Your task to perform on an android device: Go to CNN.com Image 0: 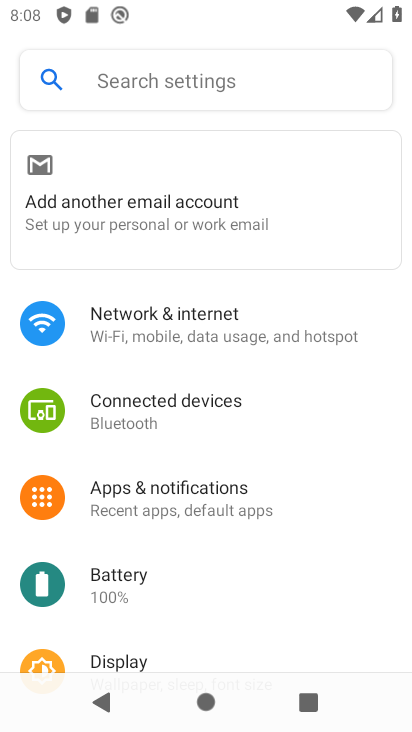
Step 0: press home button
Your task to perform on an android device: Go to CNN.com Image 1: 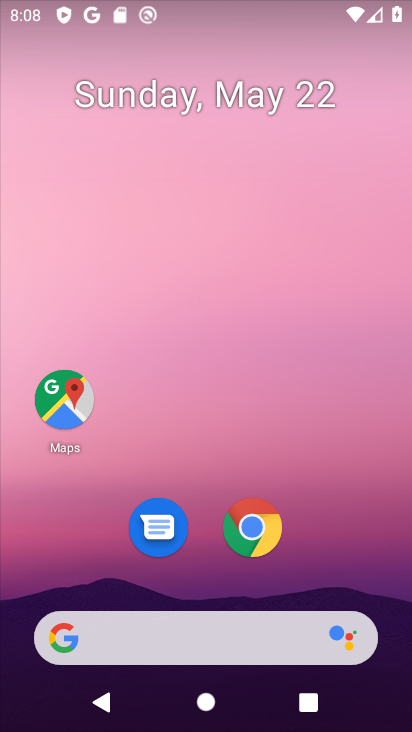
Step 1: click (247, 536)
Your task to perform on an android device: Go to CNN.com Image 2: 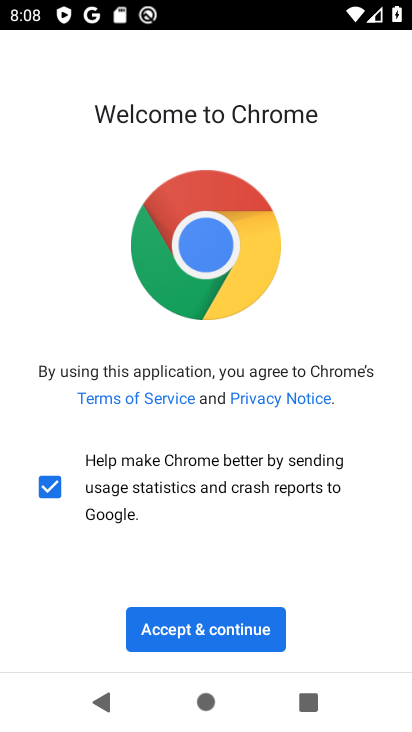
Step 2: click (199, 622)
Your task to perform on an android device: Go to CNN.com Image 3: 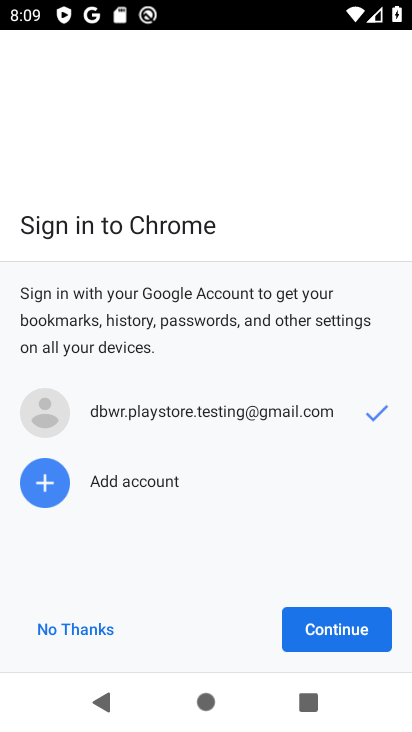
Step 3: click (369, 625)
Your task to perform on an android device: Go to CNN.com Image 4: 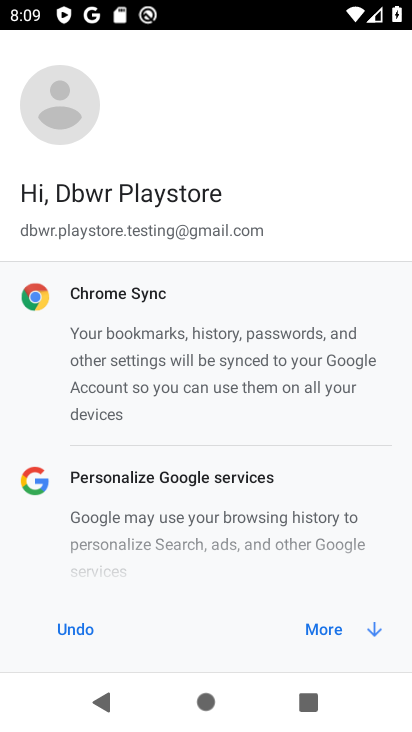
Step 4: click (344, 627)
Your task to perform on an android device: Go to CNN.com Image 5: 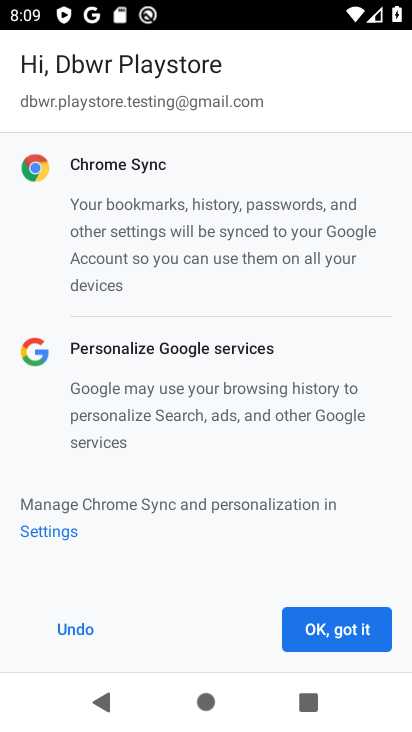
Step 5: click (344, 627)
Your task to perform on an android device: Go to CNN.com Image 6: 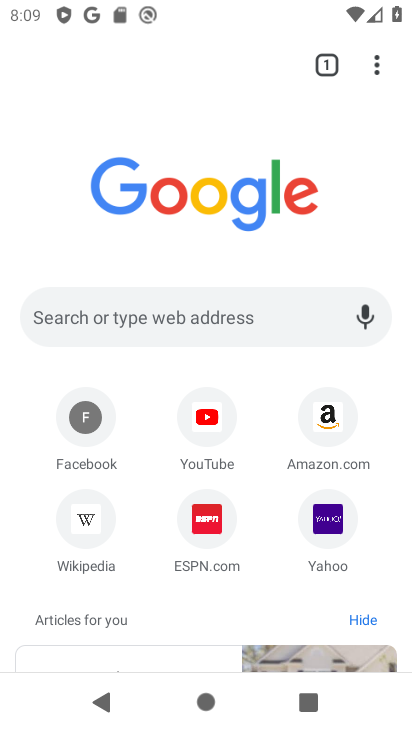
Step 6: click (108, 312)
Your task to perform on an android device: Go to CNN.com Image 7: 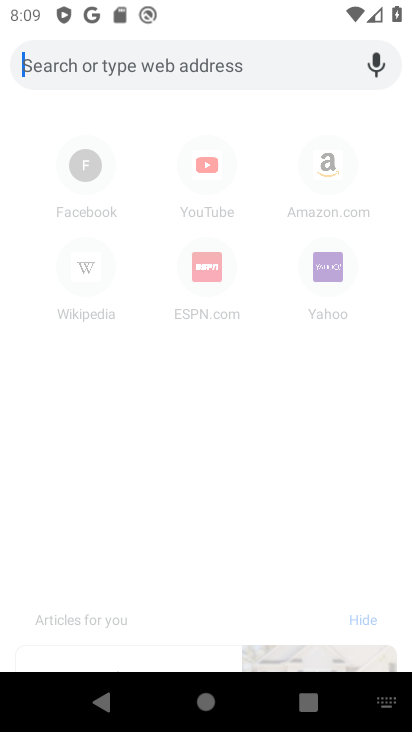
Step 7: type "cnn.com"
Your task to perform on an android device: Go to CNN.com Image 8: 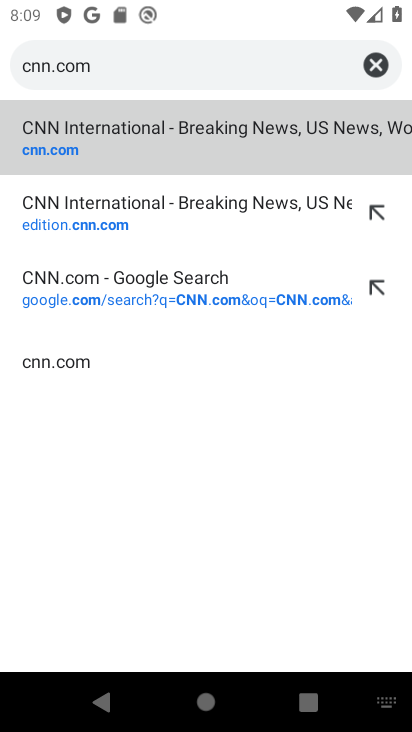
Step 8: click (95, 143)
Your task to perform on an android device: Go to CNN.com Image 9: 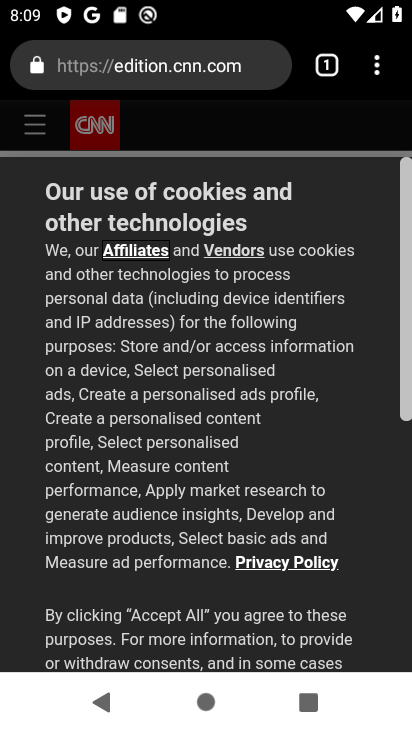
Step 9: drag from (218, 517) to (216, 176)
Your task to perform on an android device: Go to CNN.com Image 10: 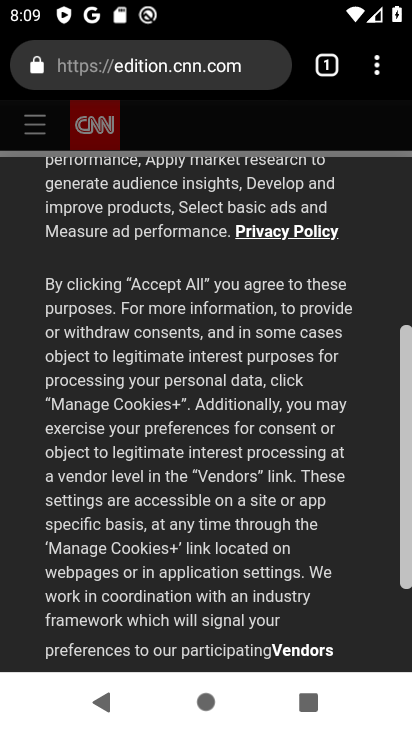
Step 10: drag from (216, 531) to (221, 241)
Your task to perform on an android device: Go to CNN.com Image 11: 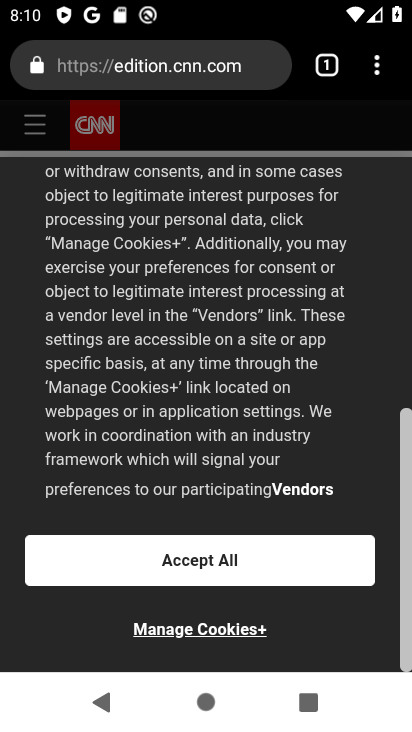
Step 11: click (203, 559)
Your task to perform on an android device: Go to CNN.com Image 12: 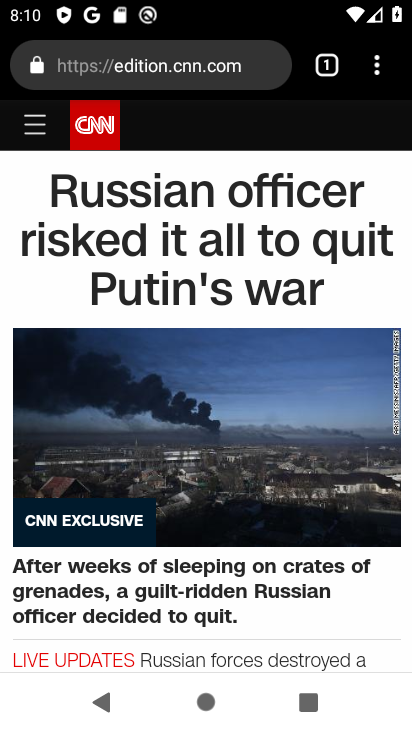
Step 12: task complete